Your task to perform on an android device: Open maps Image 0: 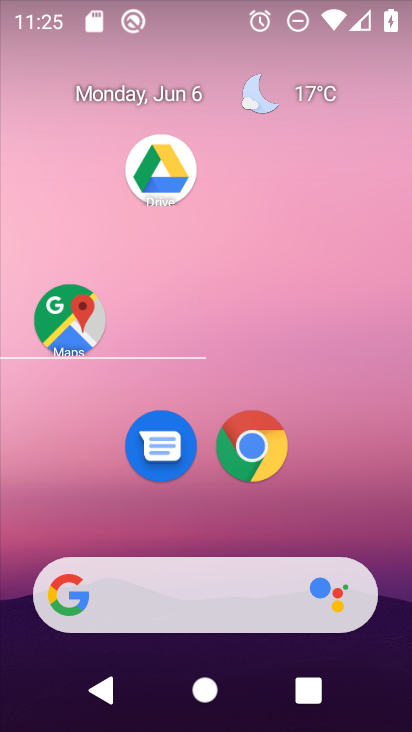
Step 0: click (81, 318)
Your task to perform on an android device: Open maps Image 1: 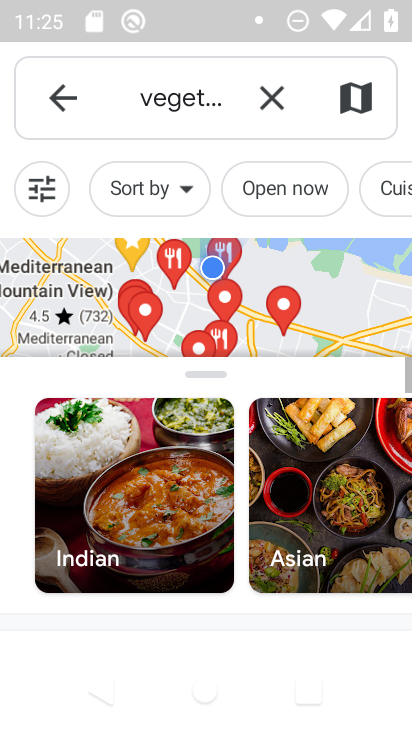
Step 1: task complete